Your task to perform on an android device: open chrome privacy settings Image 0: 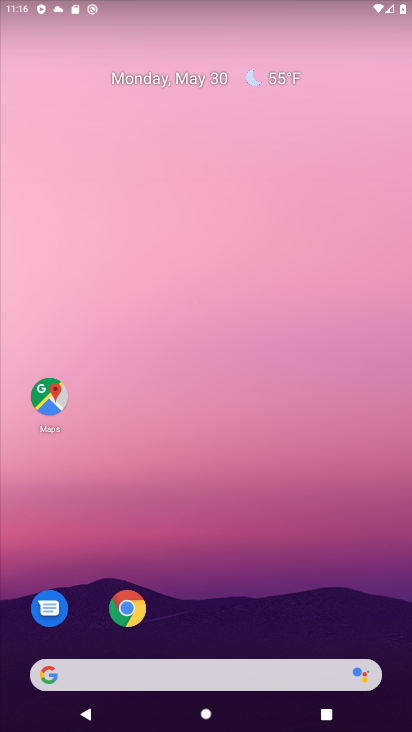
Step 0: click (127, 620)
Your task to perform on an android device: open chrome privacy settings Image 1: 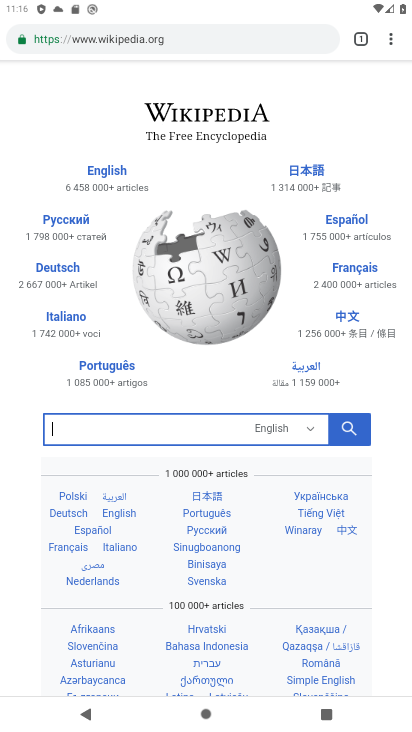
Step 1: click (392, 39)
Your task to perform on an android device: open chrome privacy settings Image 2: 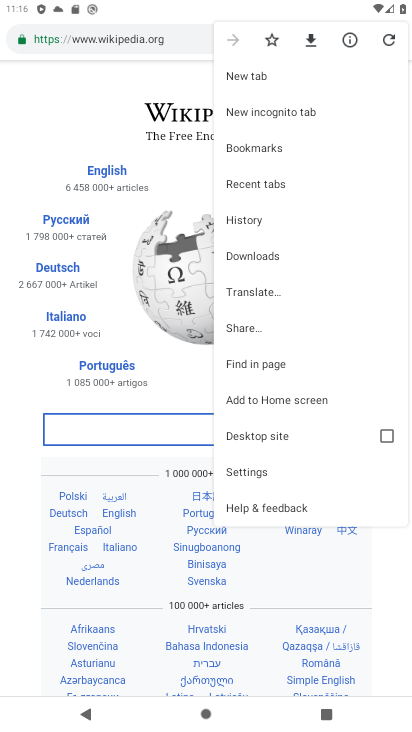
Step 2: click (247, 476)
Your task to perform on an android device: open chrome privacy settings Image 3: 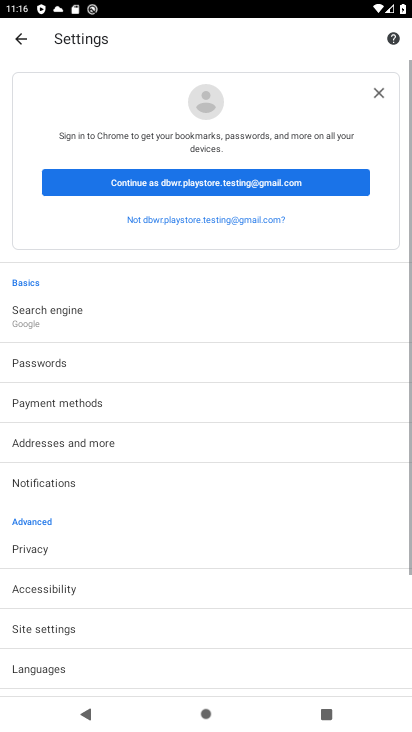
Step 3: click (21, 556)
Your task to perform on an android device: open chrome privacy settings Image 4: 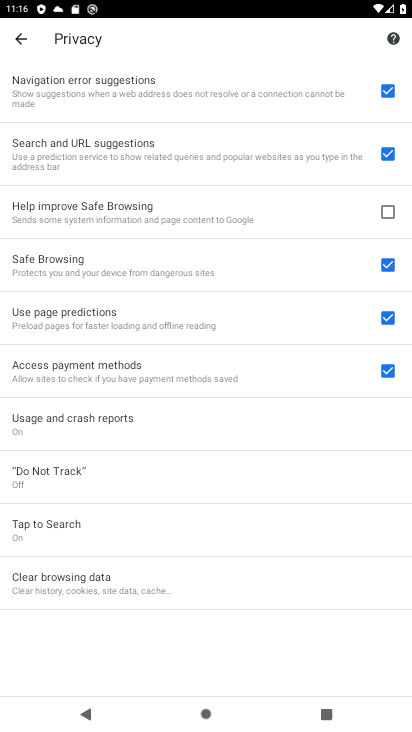
Step 4: task complete